Your task to perform on an android device: Open Google Chrome Image 0: 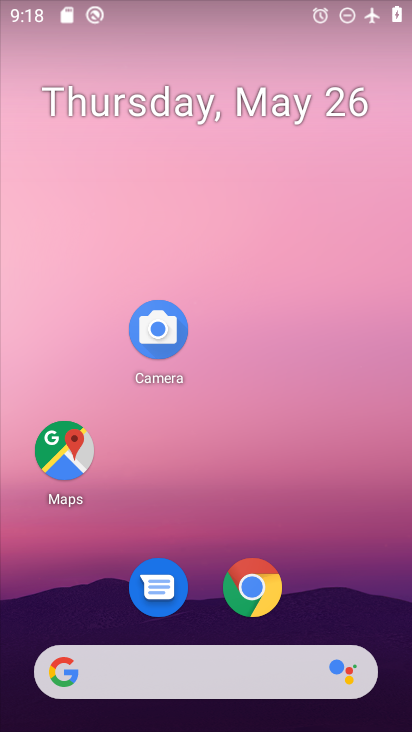
Step 0: click (258, 564)
Your task to perform on an android device: Open Google Chrome Image 1: 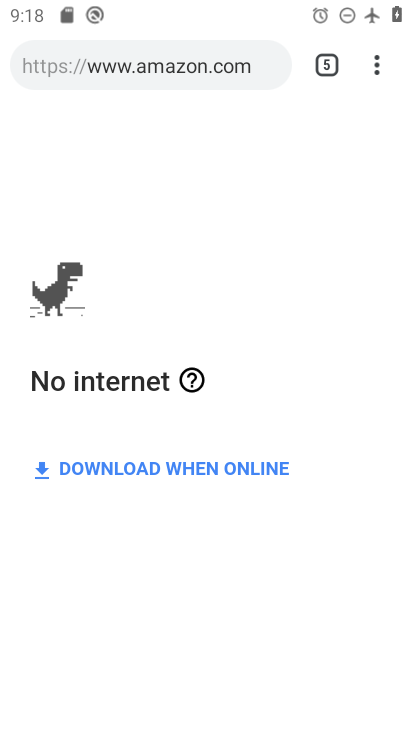
Step 1: task complete